Your task to perform on an android device: Go to Google Image 0: 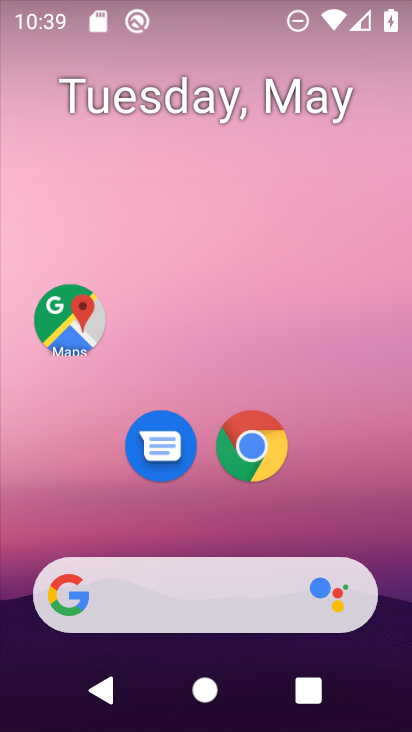
Step 0: click (156, 580)
Your task to perform on an android device: Go to Google Image 1: 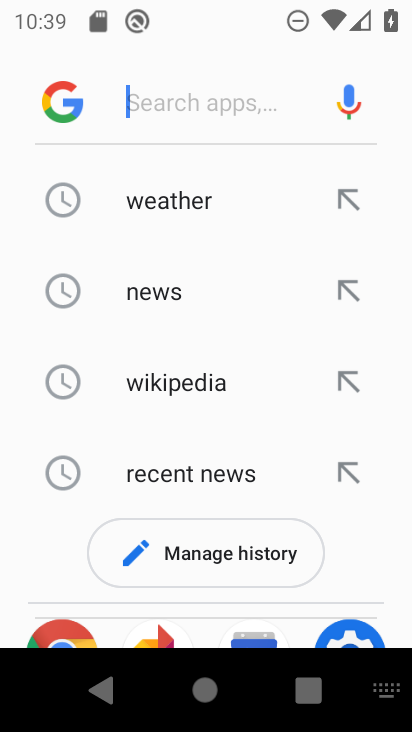
Step 1: click (65, 92)
Your task to perform on an android device: Go to Google Image 2: 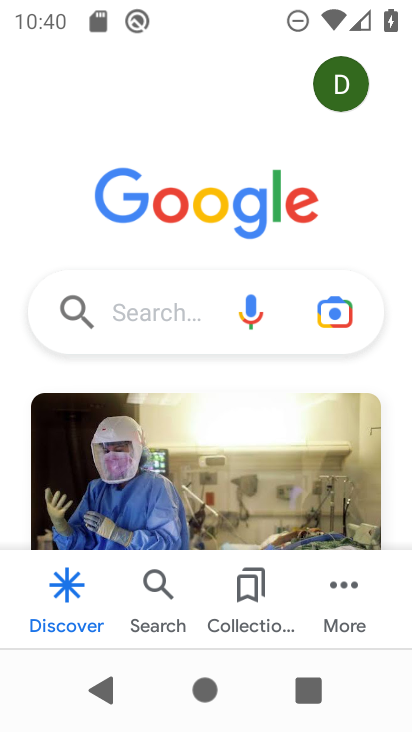
Step 2: task complete